Your task to perform on an android device: Toggle the flashlight Image 0: 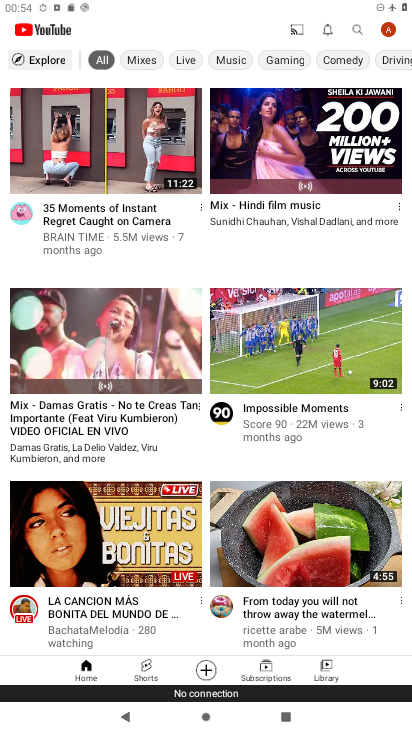
Step 0: press home button
Your task to perform on an android device: Toggle the flashlight Image 1: 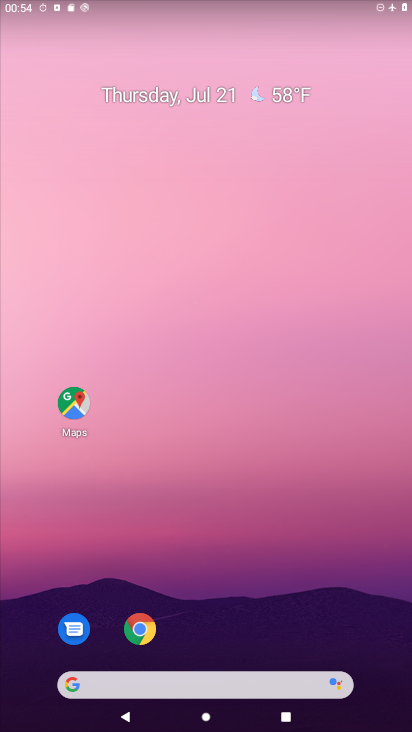
Step 1: drag from (224, 469) to (227, 161)
Your task to perform on an android device: Toggle the flashlight Image 2: 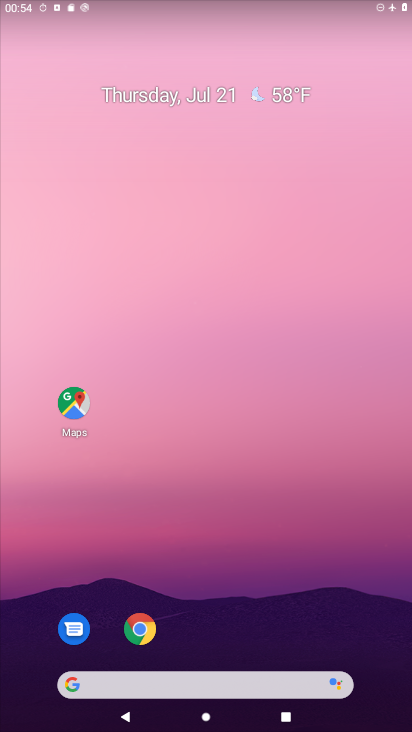
Step 2: drag from (212, 622) to (210, 240)
Your task to perform on an android device: Toggle the flashlight Image 3: 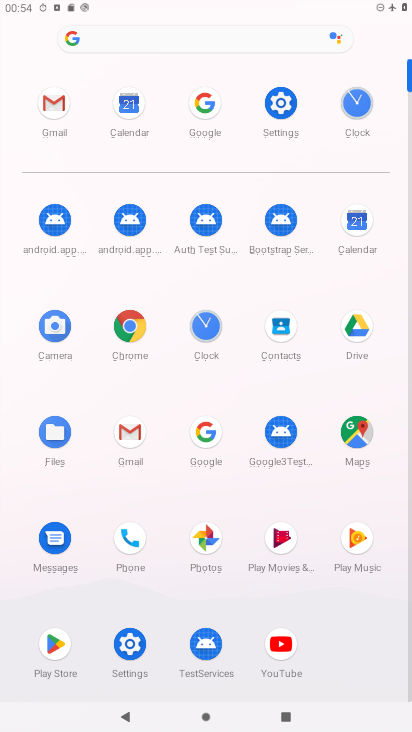
Step 3: click (273, 123)
Your task to perform on an android device: Toggle the flashlight Image 4: 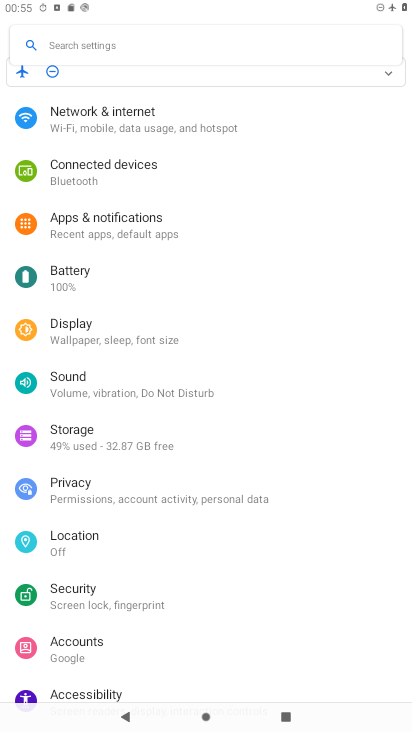
Step 4: task complete